Your task to perform on an android device: toggle airplane mode Image 0: 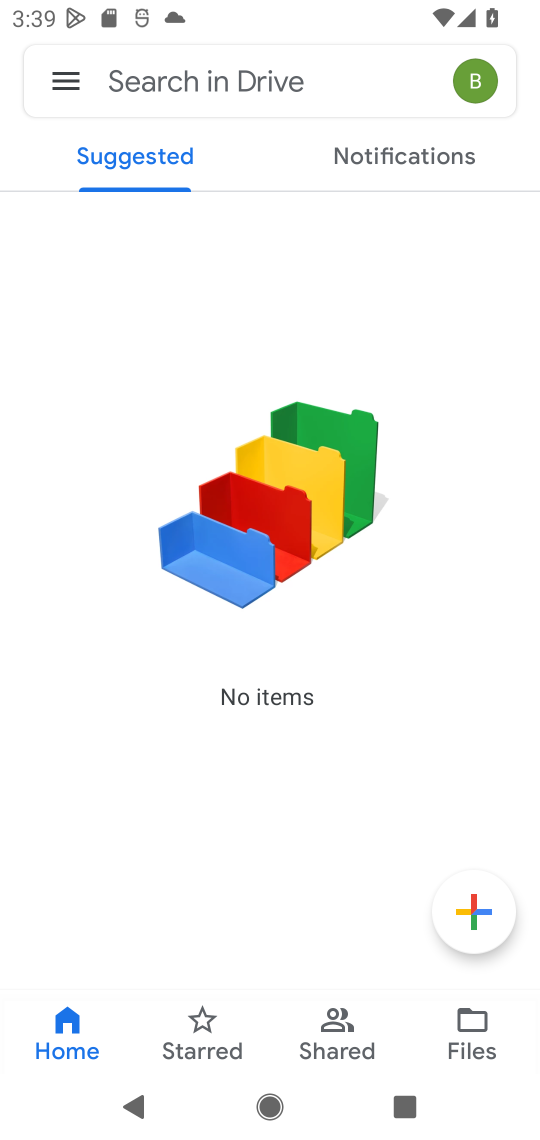
Step 0: task complete